Your task to perform on an android device: Open CNN.com Image 0: 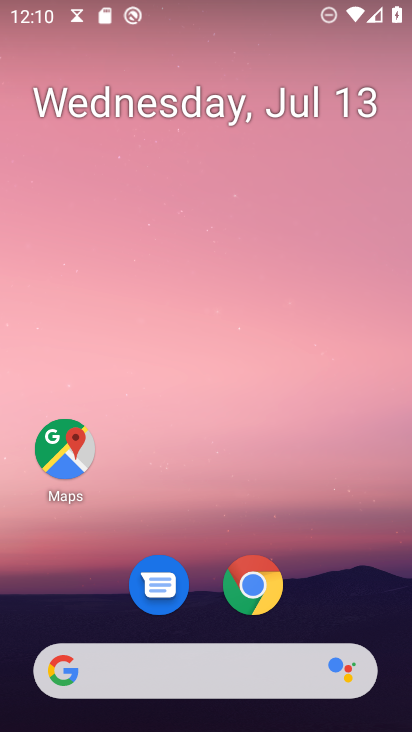
Step 0: click (247, 603)
Your task to perform on an android device: Open CNN.com Image 1: 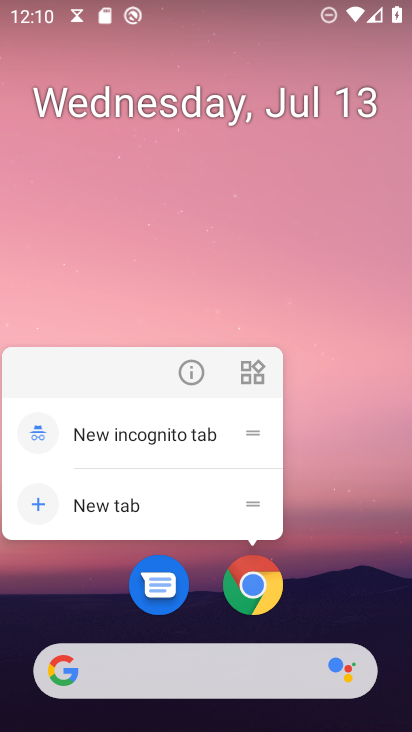
Step 1: click (260, 588)
Your task to perform on an android device: Open CNN.com Image 2: 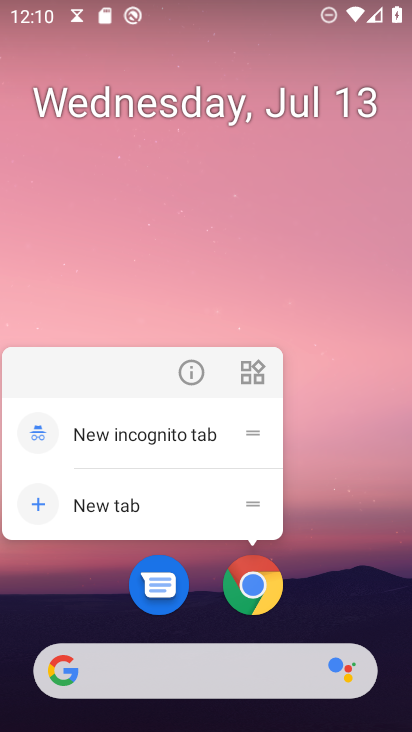
Step 2: click (260, 589)
Your task to perform on an android device: Open CNN.com Image 3: 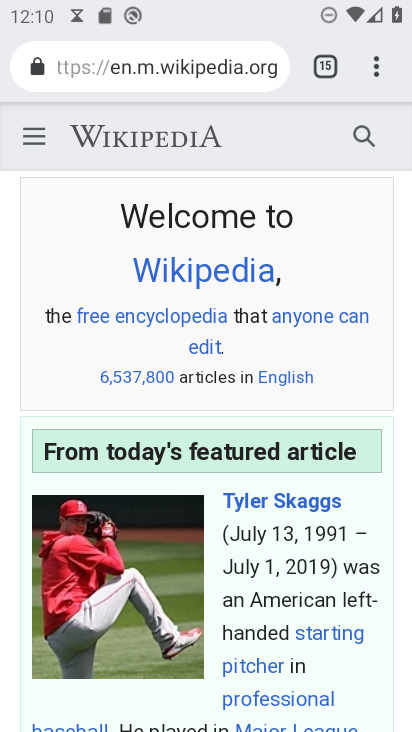
Step 3: drag from (376, 73) to (194, 130)
Your task to perform on an android device: Open CNN.com Image 4: 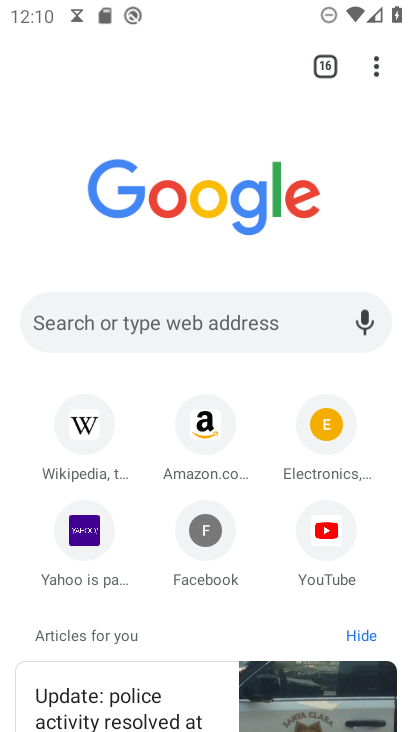
Step 4: click (151, 323)
Your task to perform on an android device: Open CNN.com Image 5: 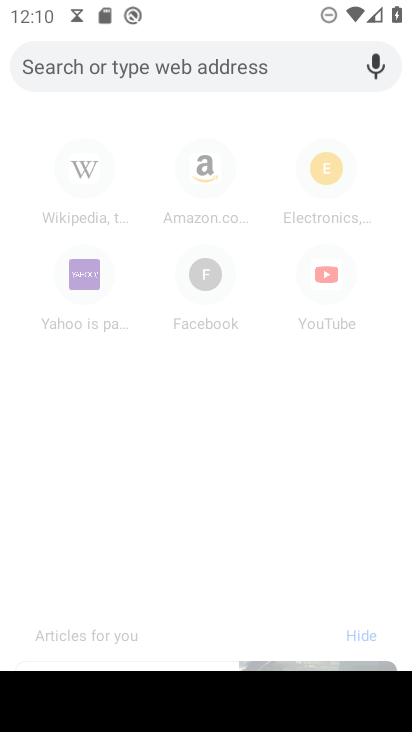
Step 5: type "cnn.com"
Your task to perform on an android device: Open CNN.com Image 6: 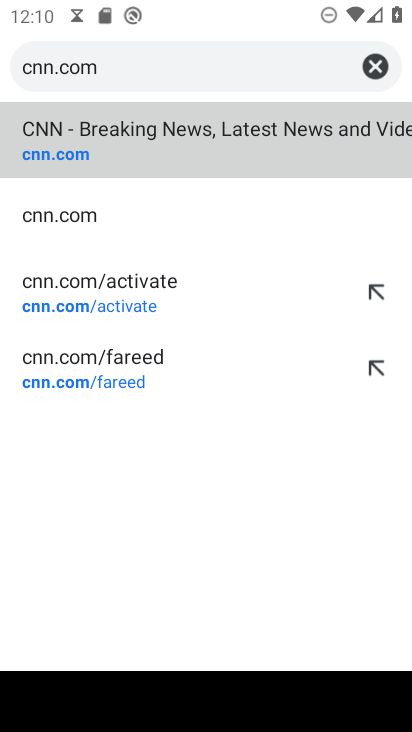
Step 6: click (153, 149)
Your task to perform on an android device: Open CNN.com Image 7: 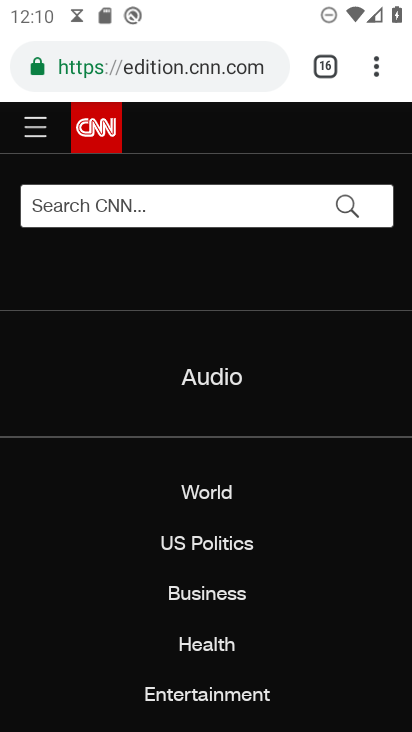
Step 7: task complete